Your task to perform on an android device: turn notification dots on Image 0: 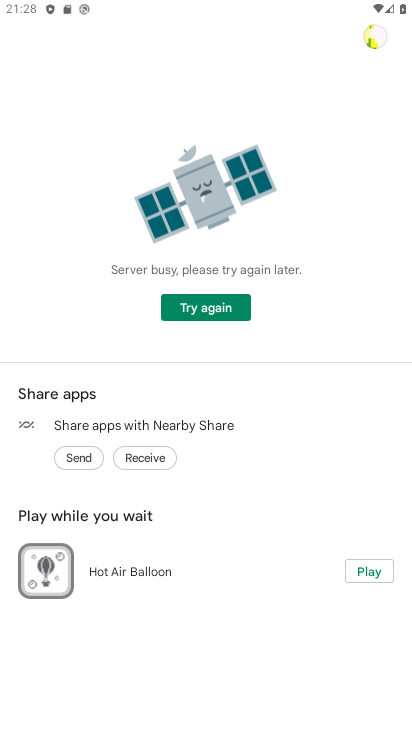
Step 0: press home button
Your task to perform on an android device: turn notification dots on Image 1: 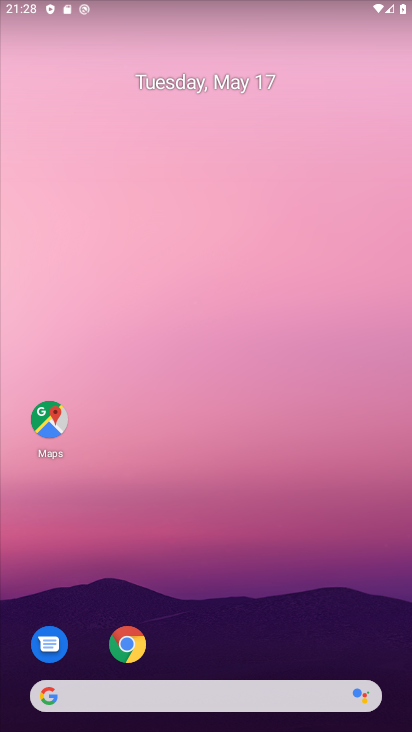
Step 1: drag from (177, 664) to (269, 259)
Your task to perform on an android device: turn notification dots on Image 2: 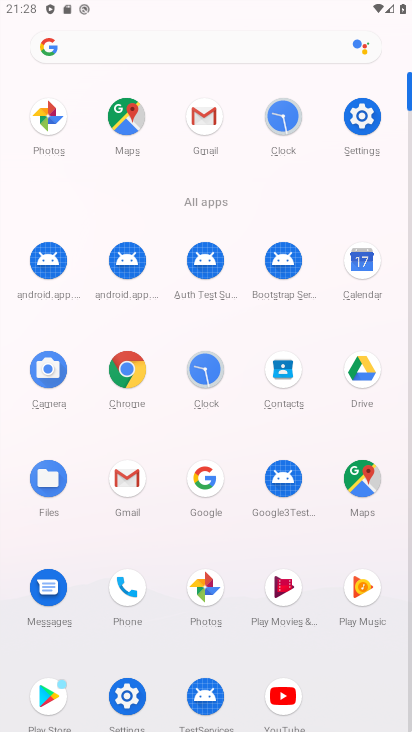
Step 2: drag from (143, 628) to (207, 460)
Your task to perform on an android device: turn notification dots on Image 3: 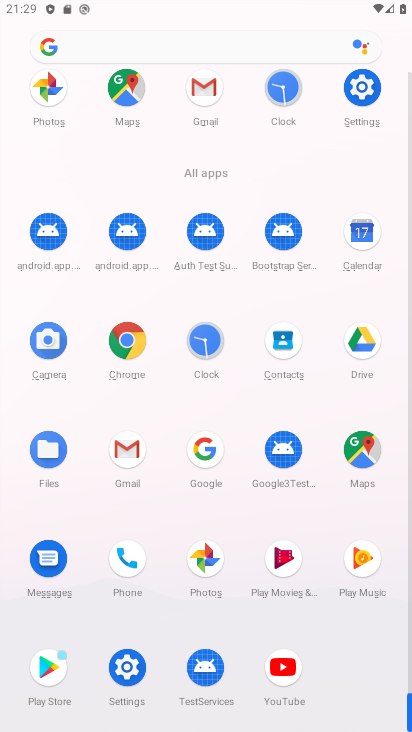
Step 3: click (121, 665)
Your task to perform on an android device: turn notification dots on Image 4: 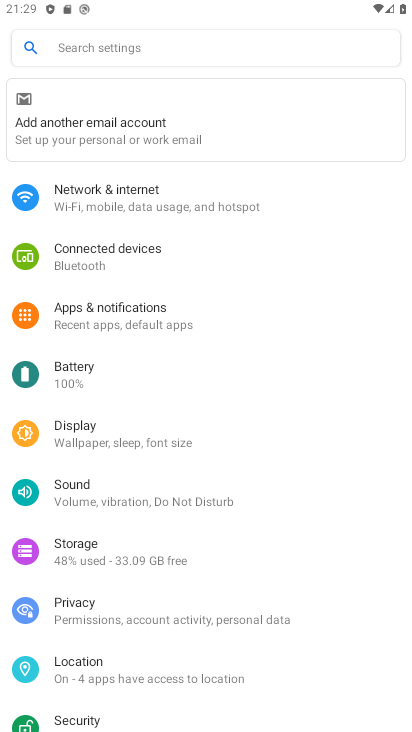
Step 4: click (173, 321)
Your task to perform on an android device: turn notification dots on Image 5: 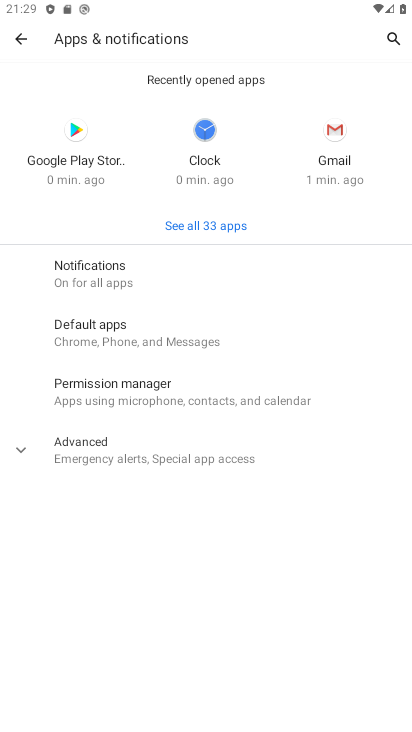
Step 5: click (180, 277)
Your task to perform on an android device: turn notification dots on Image 6: 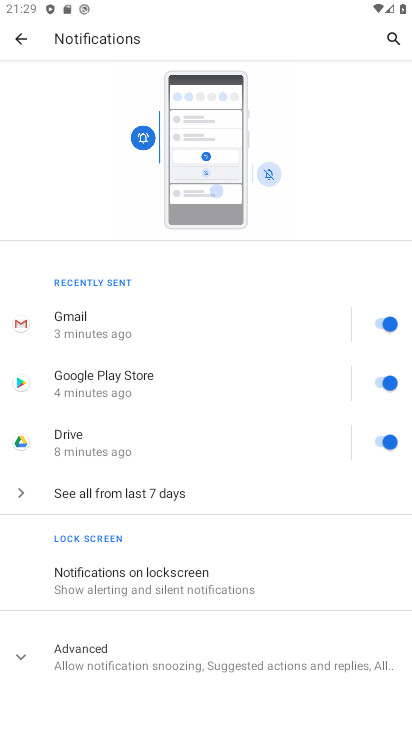
Step 6: click (162, 664)
Your task to perform on an android device: turn notification dots on Image 7: 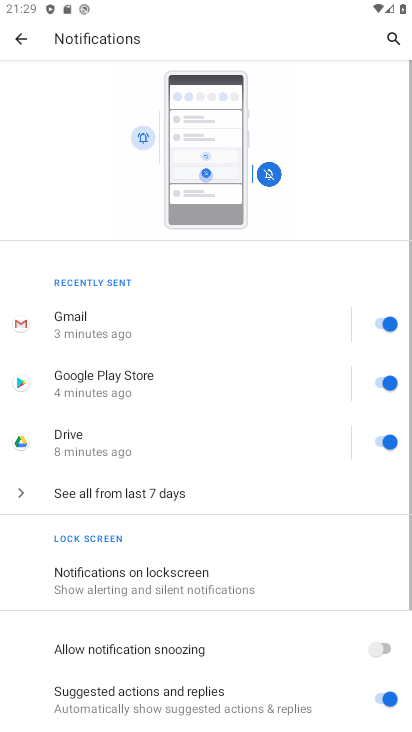
Step 7: task complete